Your task to perform on an android device: toggle javascript in the chrome app Image 0: 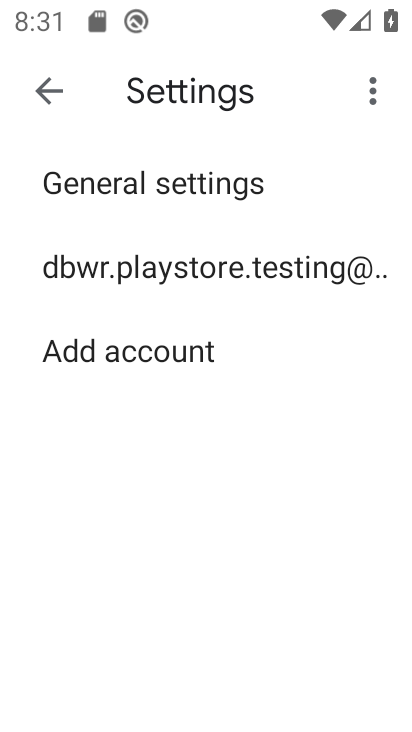
Step 0: press home button
Your task to perform on an android device: toggle javascript in the chrome app Image 1: 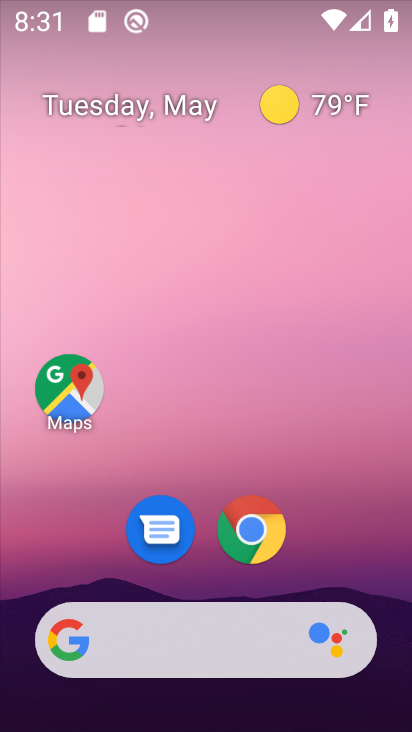
Step 1: click (254, 525)
Your task to perform on an android device: toggle javascript in the chrome app Image 2: 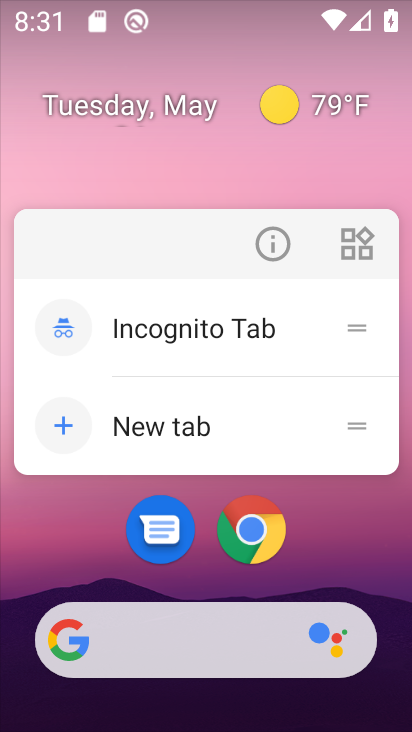
Step 2: click (254, 524)
Your task to perform on an android device: toggle javascript in the chrome app Image 3: 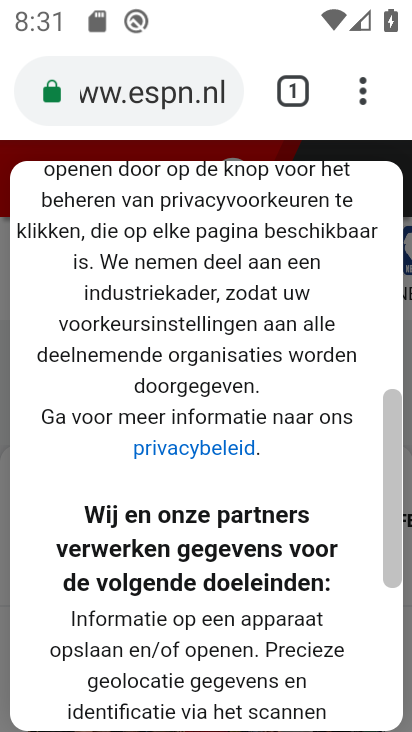
Step 3: click (368, 93)
Your task to perform on an android device: toggle javascript in the chrome app Image 4: 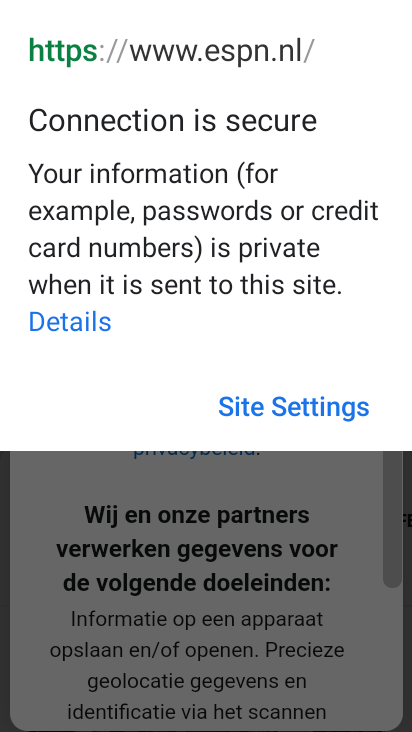
Step 4: click (290, 555)
Your task to perform on an android device: toggle javascript in the chrome app Image 5: 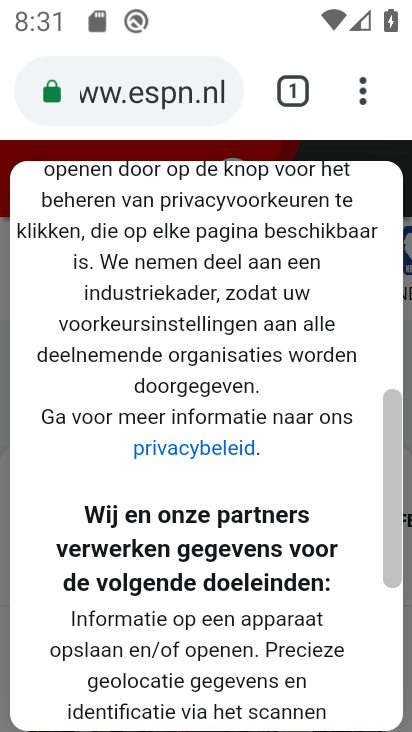
Step 5: drag from (376, 83) to (295, 557)
Your task to perform on an android device: toggle javascript in the chrome app Image 6: 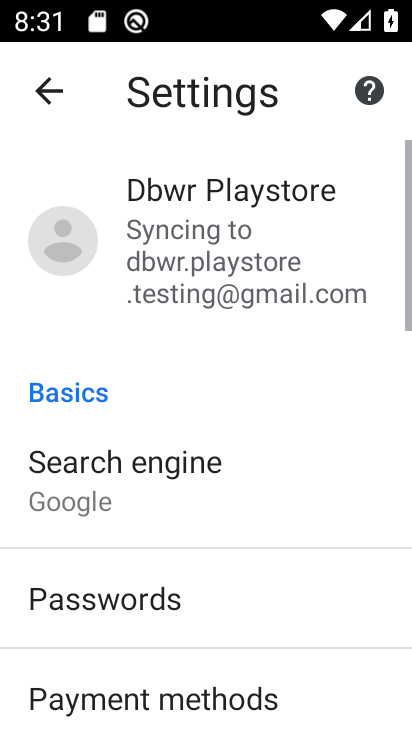
Step 6: drag from (295, 553) to (335, 77)
Your task to perform on an android device: toggle javascript in the chrome app Image 7: 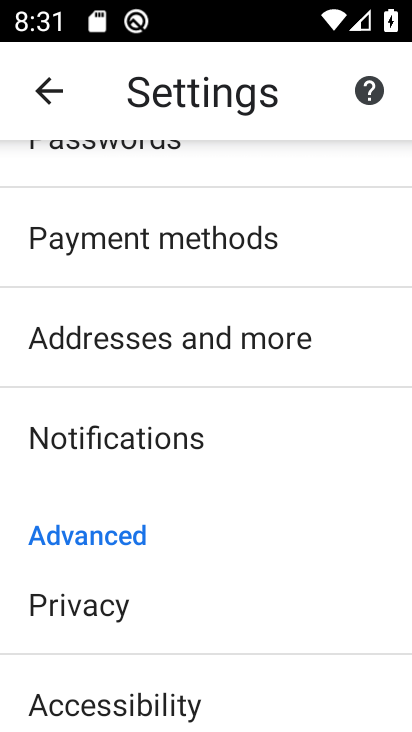
Step 7: drag from (206, 546) to (330, 98)
Your task to perform on an android device: toggle javascript in the chrome app Image 8: 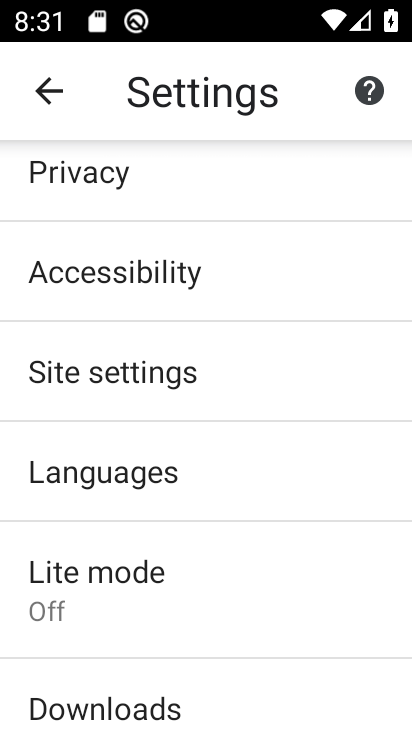
Step 8: click (164, 370)
Your task to perform on an android device: toggle javascript in the chrome app Image 9: 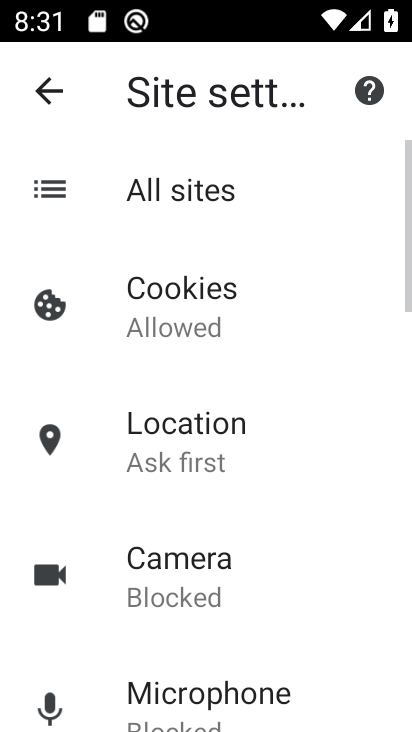
Step 9: drag from (251, 579) to (310, 150)
Your task to perform on an android device: toggle javascript in the chrome app Image 10: 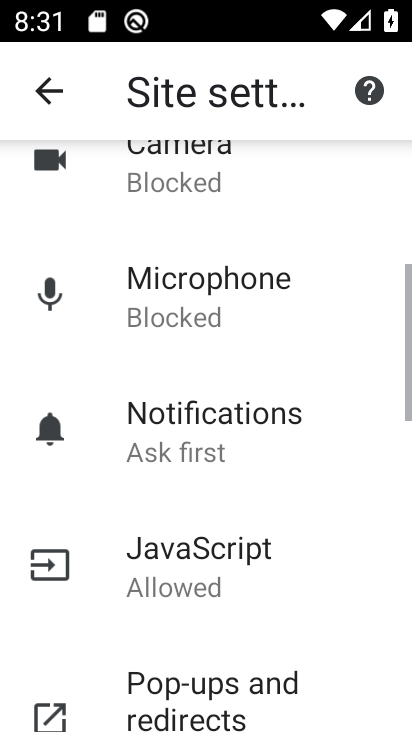
Step 10: click (310, 150)
Your task to perform on an android device: toggle javascript in the chrome app Image 11: 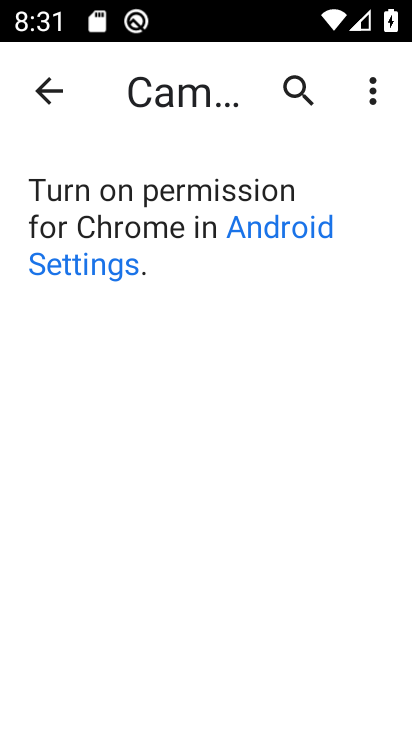
Step 11: drag from (204, 574) to (262, 285)
Your task to perform on an android device: toggle javascript in the chrome app Image 12: 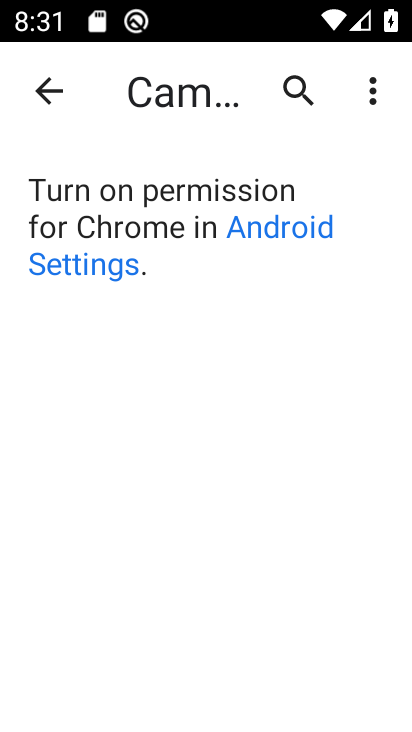
Step 12: click (43, 86)
Your task to perform on an android device: toggle javascript in the chrome app Image 13: 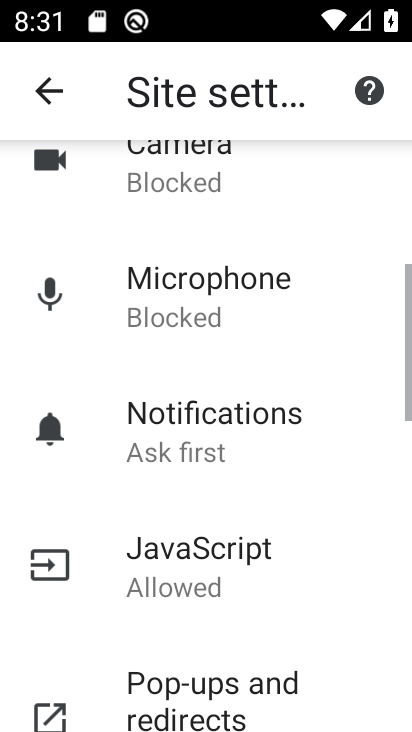
Step 13: click (203, 583)
Your task to perform on an android device: toggle javascript in the chrome app Image 14: 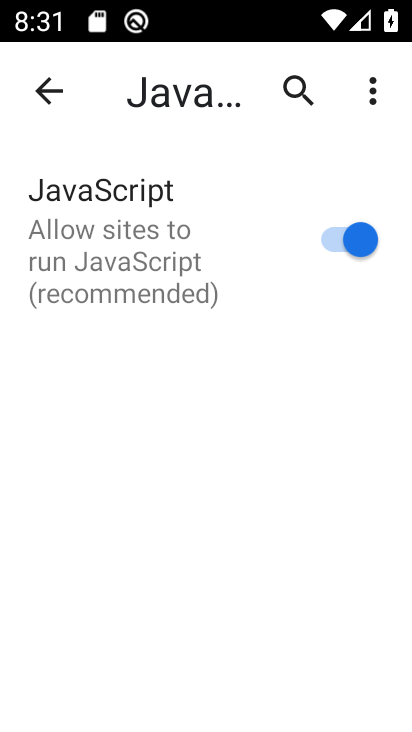
Step 14: click (341, 249)
Your task to perform on an android device: toggle javascript in the chrome app Image 15: 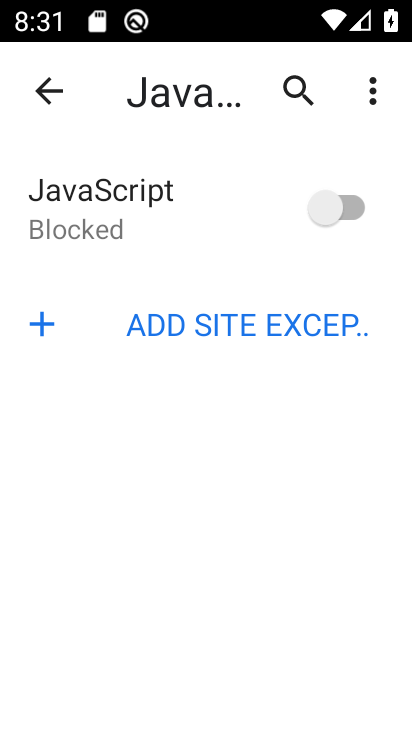
Step 15: task complete